Your task to perform on an android device: clear history in the chrome app Image 0: 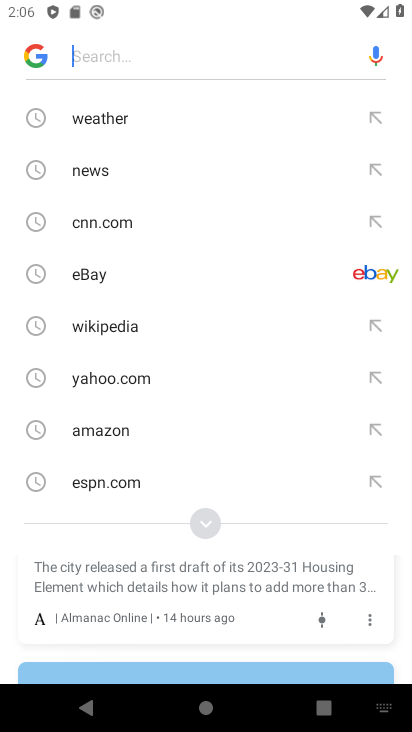
Step 0: press home button
Your task to perform on an android device: clear history in the chrome app Image 1: 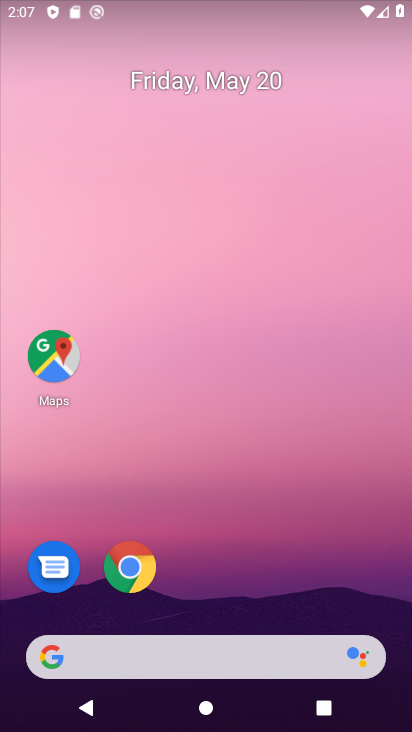
Step 1: click (139, 561)
Your task to perform on an android device: clear history in the chrome app Image 2: 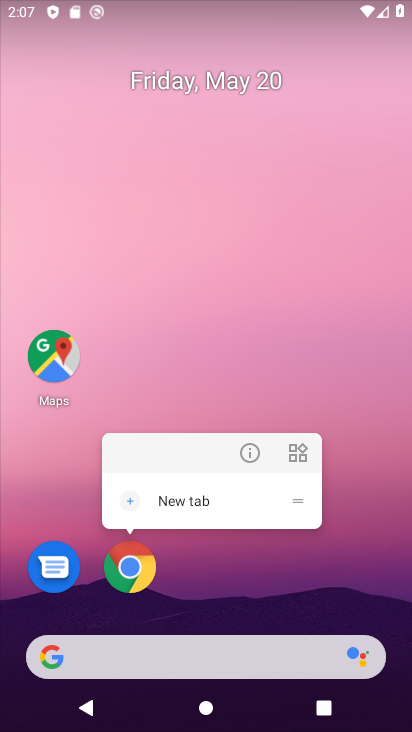
Step 2: click (113, 558)
Your task to perform on an android device: clear history in the chrome app Image 3: 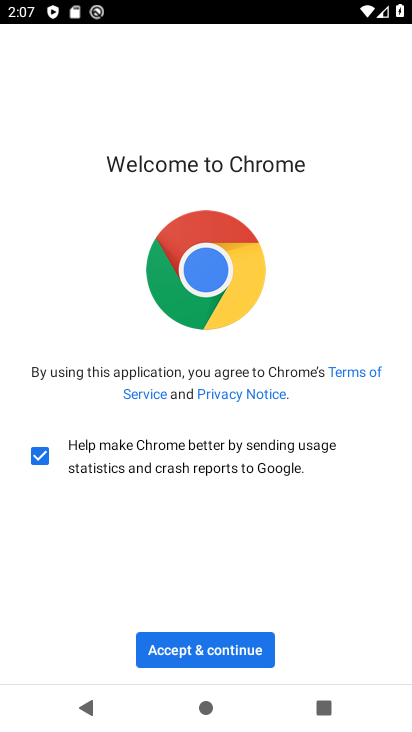
Step 3: click (176, 642)
Your task to perform on an android device: clear history in the chrome app Image 4: 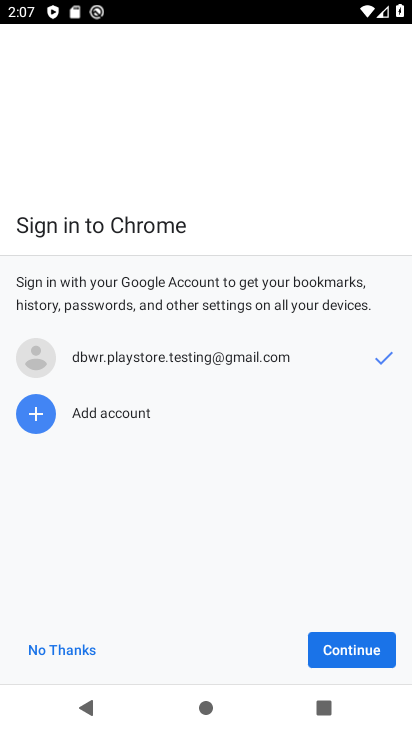
Step 4: click (346, 646)
Your task to perform on an android device: clear history in the chrome app Image 5: 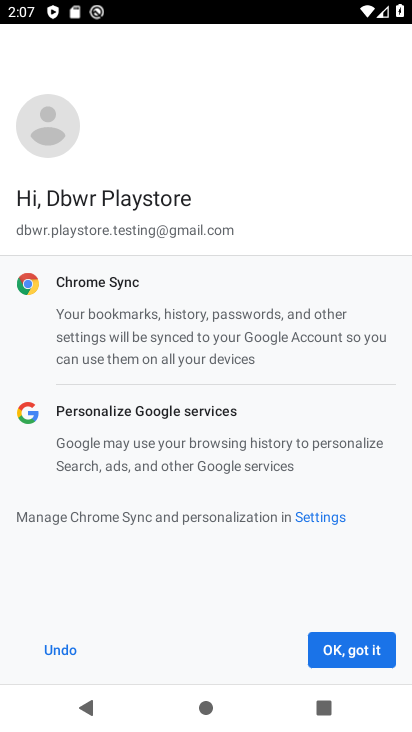
Step 5: click (388, 649)
Your task to perform on an android device: clear history in the chrome app Image 6: 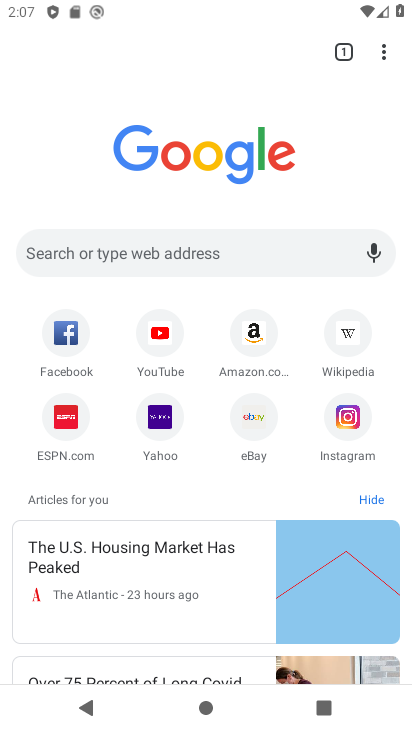
Step 6: click (381, 45)
Your task to perform on an android device: clear history in the chrome app Image 7: 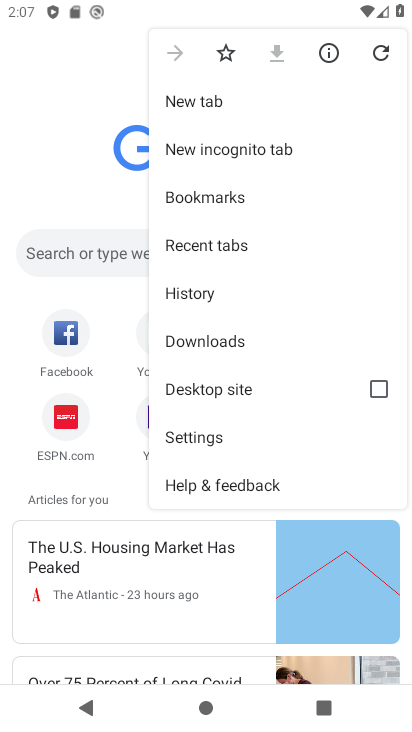
Step 7: click (180, 291)
Your task to perform on an android device: clear history in the chrome app Image 8: 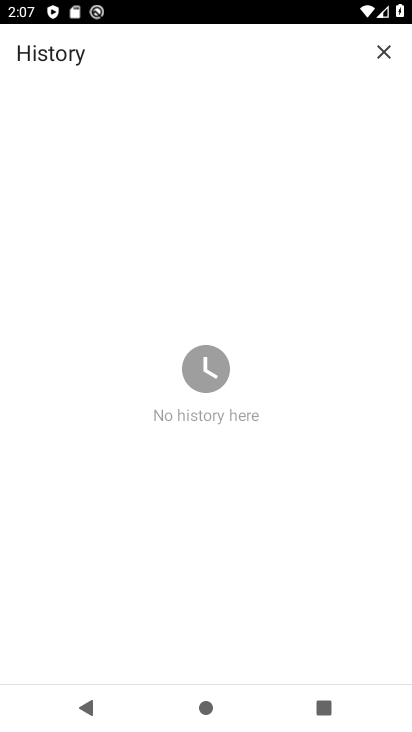
Step 8: task complete